Your task to perform on an android device: Go to internet settings Image 0: 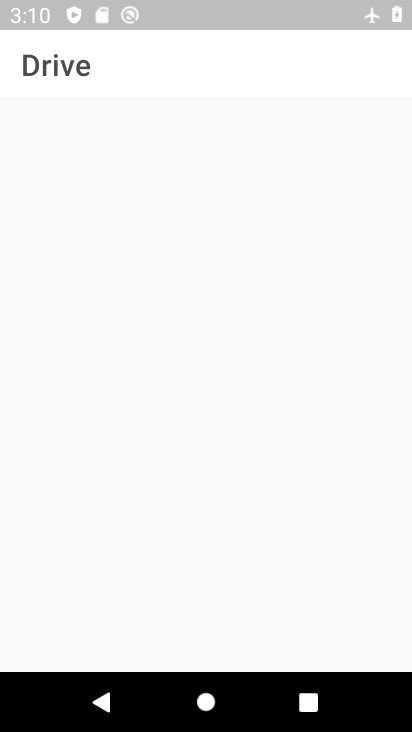
Step 0: press home button
Your task to perform on an android device: Go to internet settings Image 1: 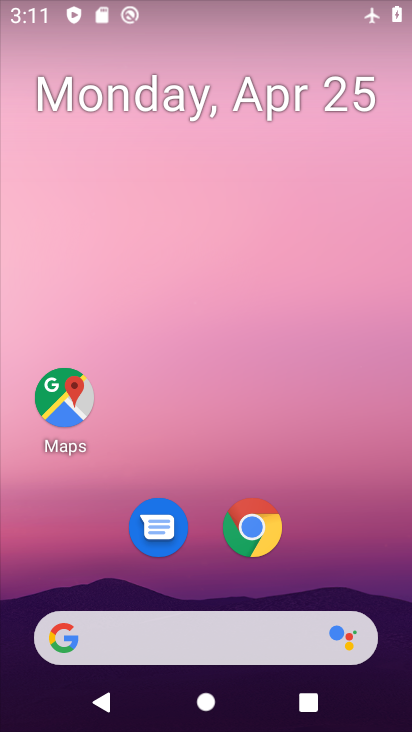
Step 1: drag from (160, 649) to (300, 131)
Your task to perform on an android device: Go to internet settings Image 2: 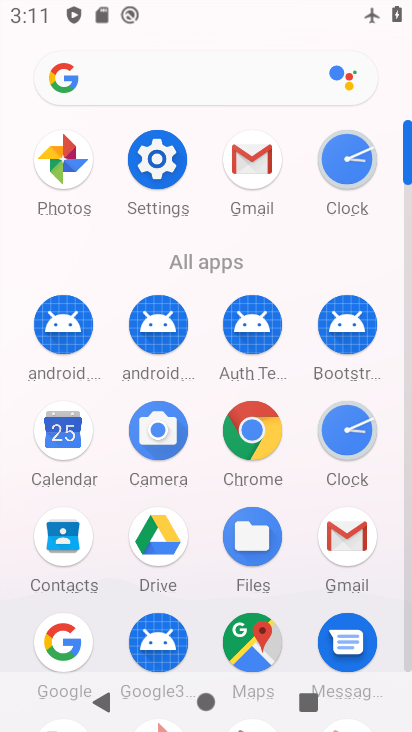
Step 2: click (158, 163)
Your task to perform on an android device: Go to internet settings Image 3: 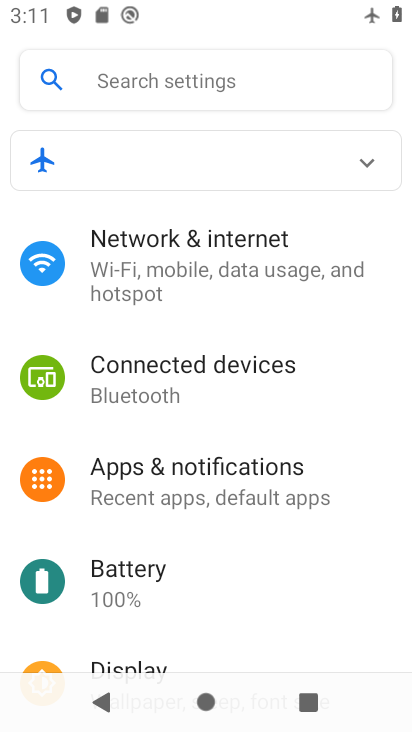
Step 3: click (203, 253)
Your task to perform on an android device: Go to internet settings Image 4: 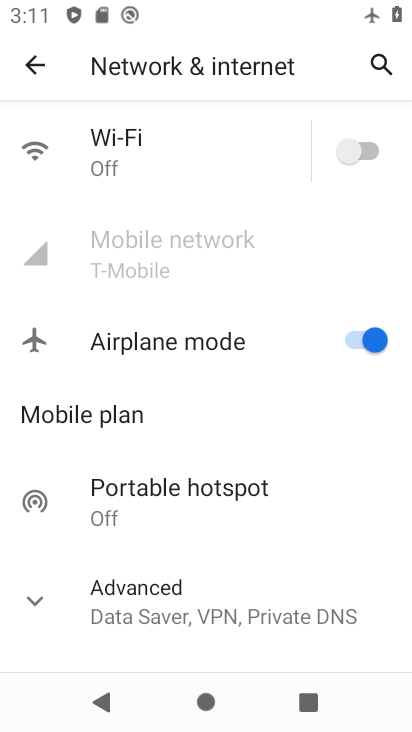
Step 4: task complete